Your task to perform on an android device: Clear the cart on ebay.com. Add razer deathadder to the cart on ebay.com, then select checkout. Image 0: 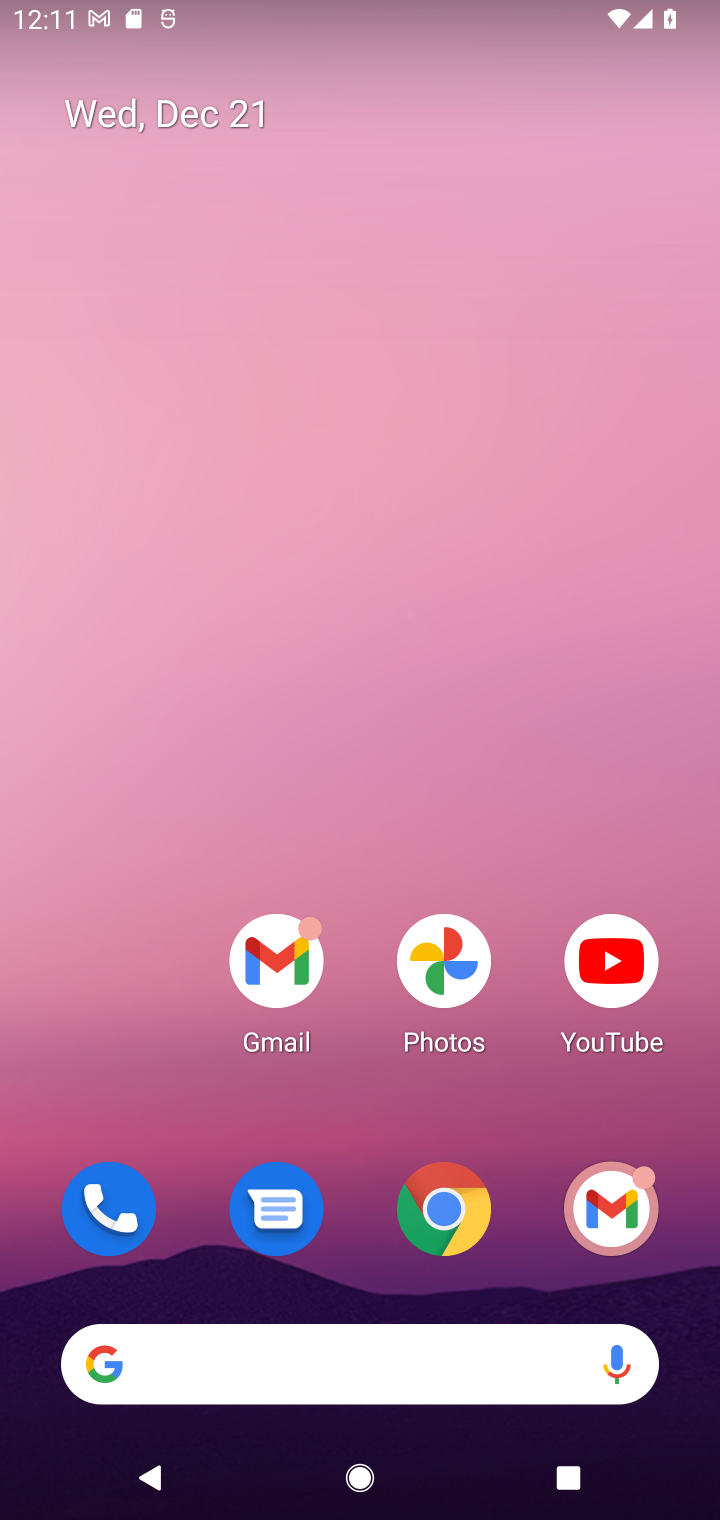
Step 0: click (433, 1218)
Your task to perform on an android device: Clear the cart on ebay.com. Add razer deathadder to the cart on ebay.com, then select checkout. Image 1: 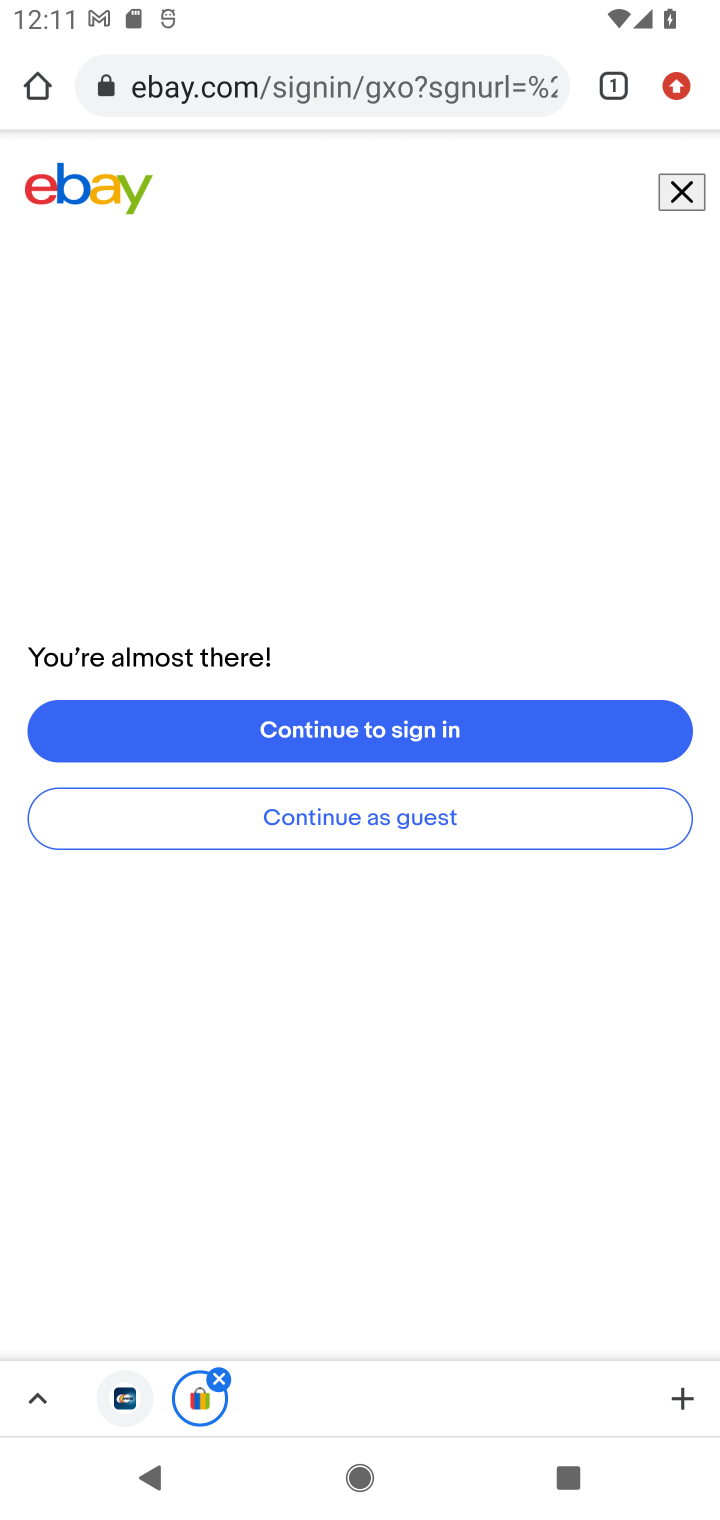
Step 1: click (688, 202)
Your task to perform on an android device: Clear the cart on ebay.com. Add razer deathadder to the cart on ebay.com, then select checkout. Image 2: 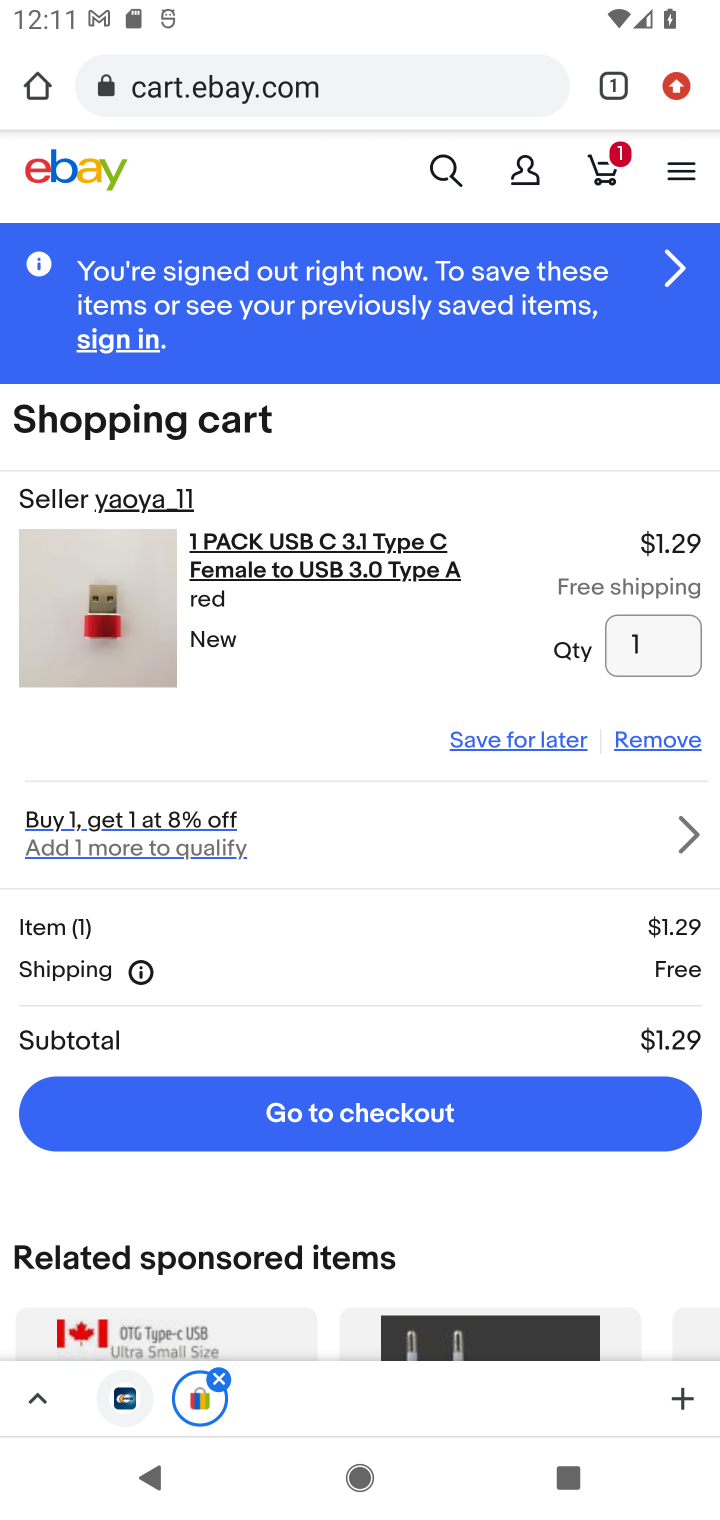
Step 2: click (652, 743)
Your task to perform on an android device: Clear the cart on ebay.com. Add razer deathadder to the cart on ebay.com, then select checkout. Image 3: 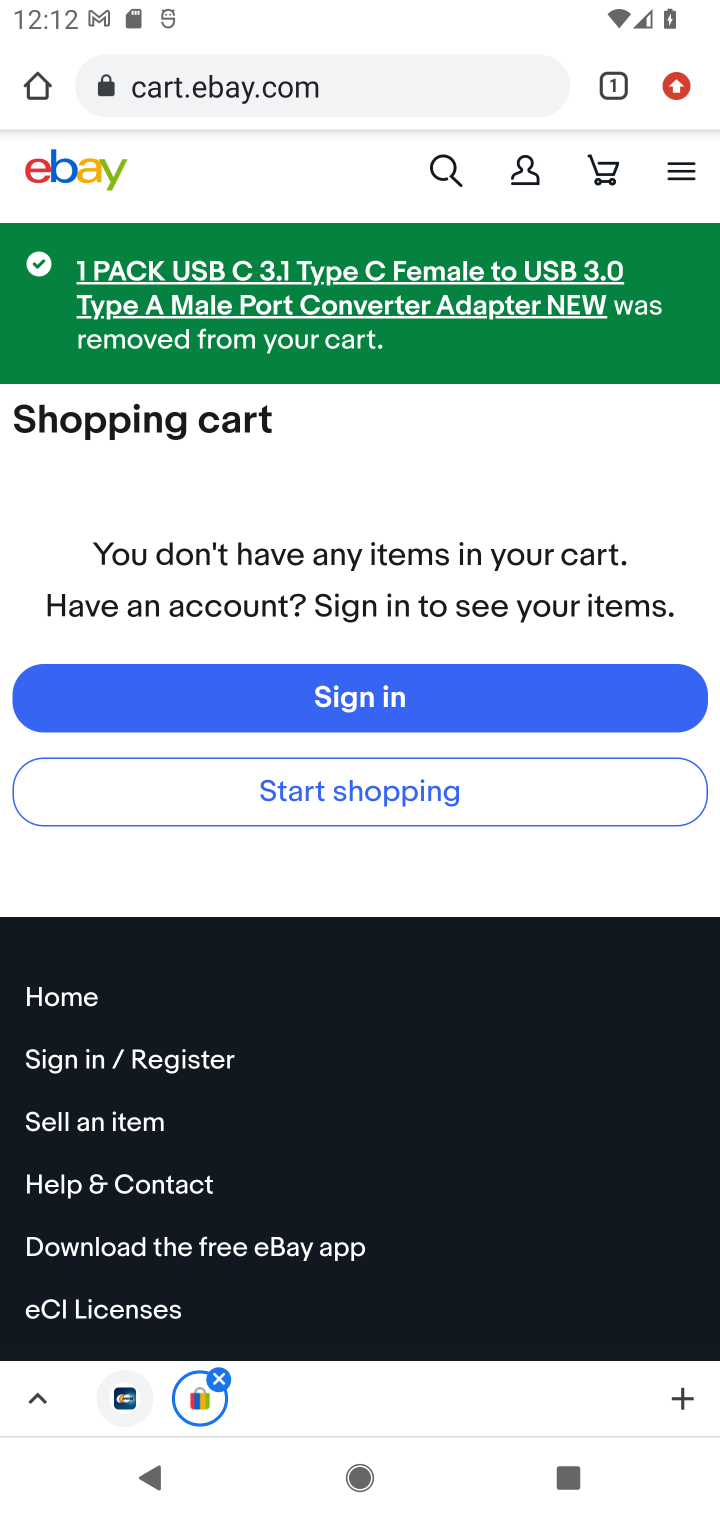
Step 3: click (432, 175)
Your task to perform on an android device: Clear the cart on ebay.com. Add razer deathadder to the cart on ebay.com, then select checkout. Image 4: 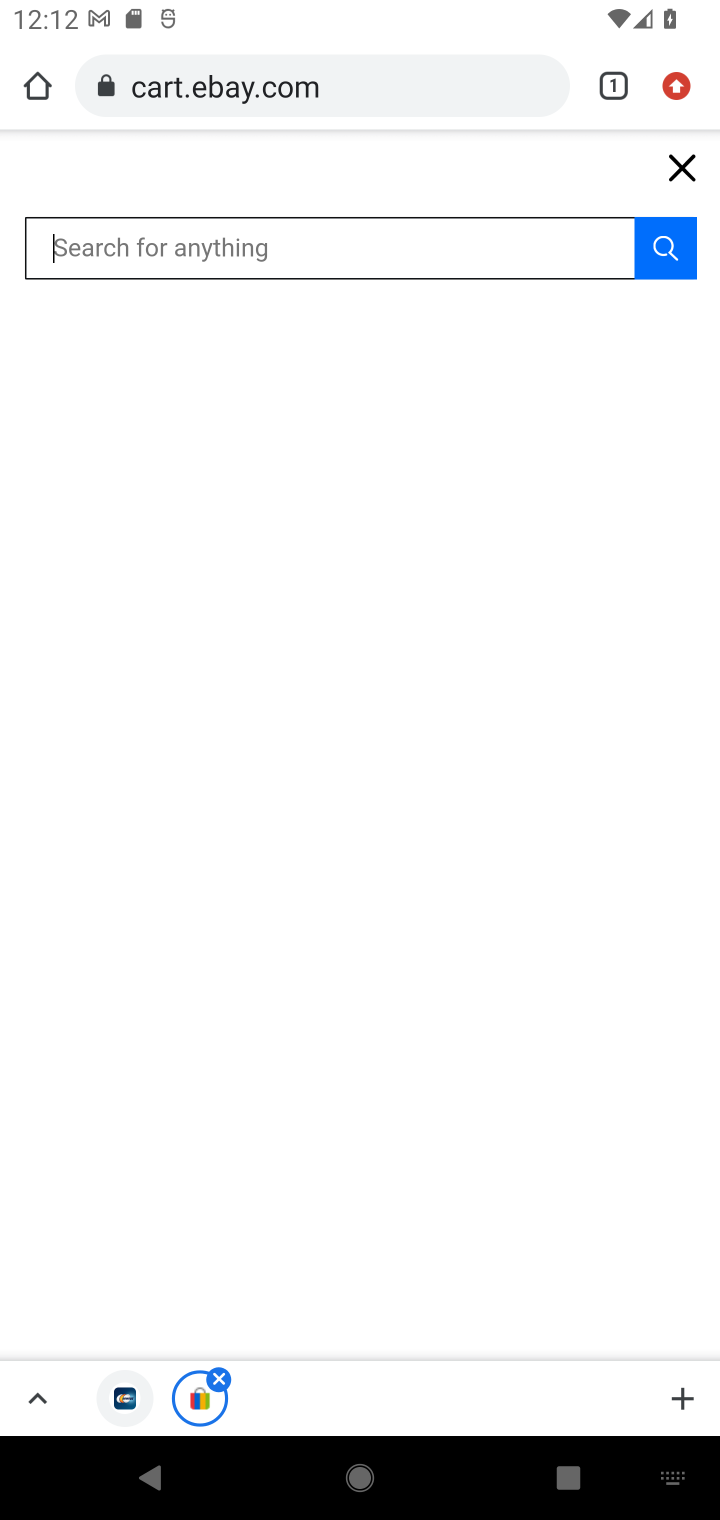
Step 4: type "razer deathadder"
Your task to perform on an android device: Clear the cart on ebay.com. Add razer deathadder to the cart on ebay.com, then select checkout. Image 5: 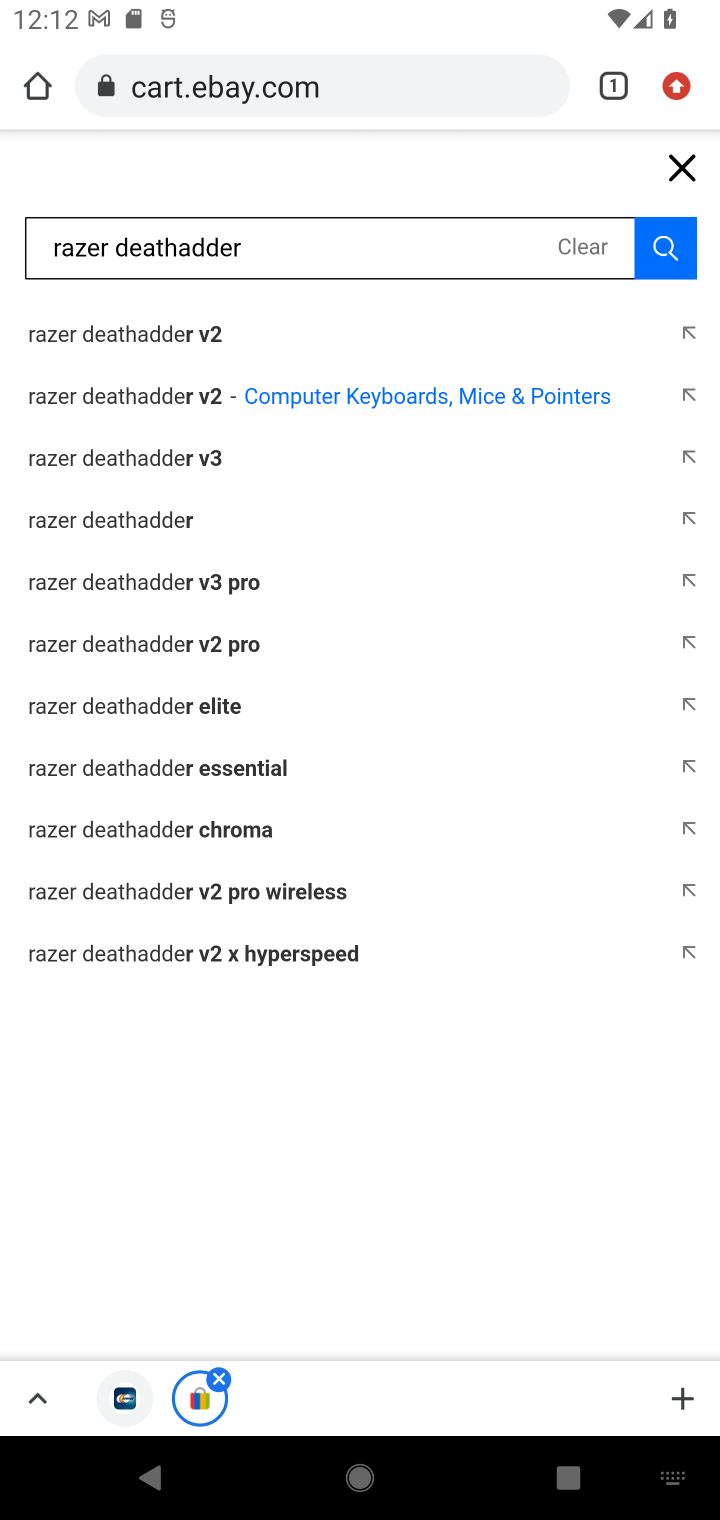
Step 5: click (140, 530)
Your task to perform on an android device: Clear the cart on ebay.com. Add razer deathadder to the cart on ebay.com, then select checkout. Image 6: 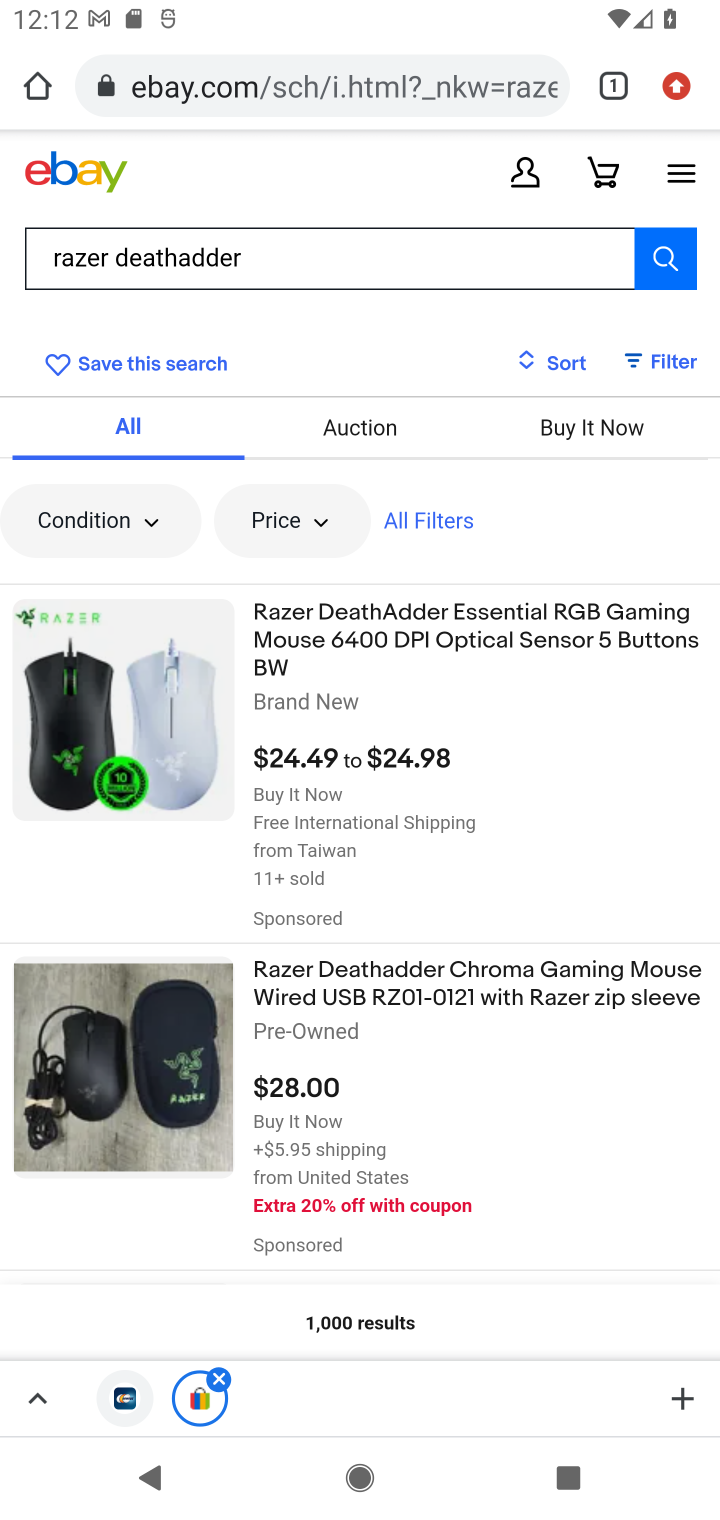
Step 6: click (315, 642)
Your task to perform on an android device: Clear the cart on ebay.com. Add razer deathadder to the cart on ebay.com, then select checkout. Image 7: 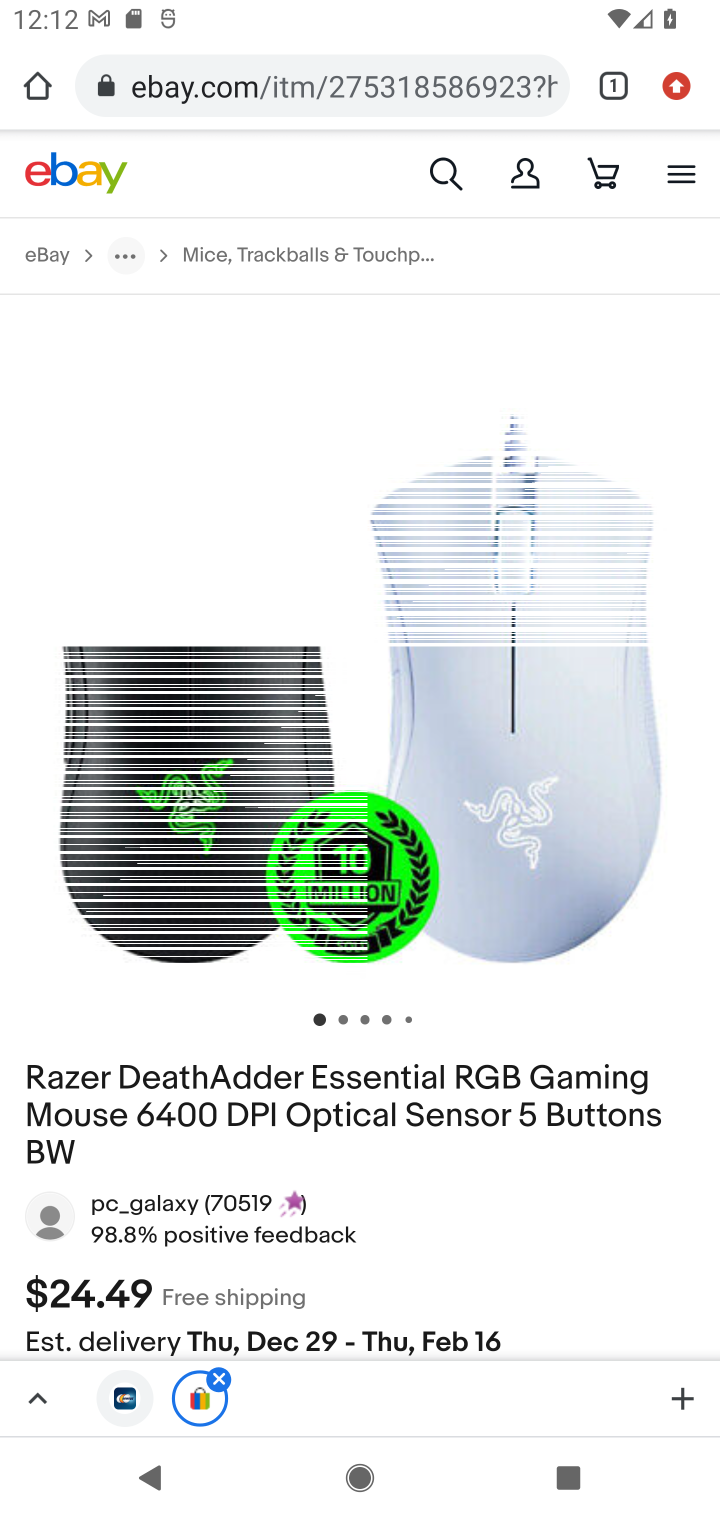
Step 7: drag from (367, 1126) to (407, 439)
Your task to perform on an android device: Clear the cart on ebay.com. Add razer deathadder to the cart on ebay.com, then select checkout. Image 8: 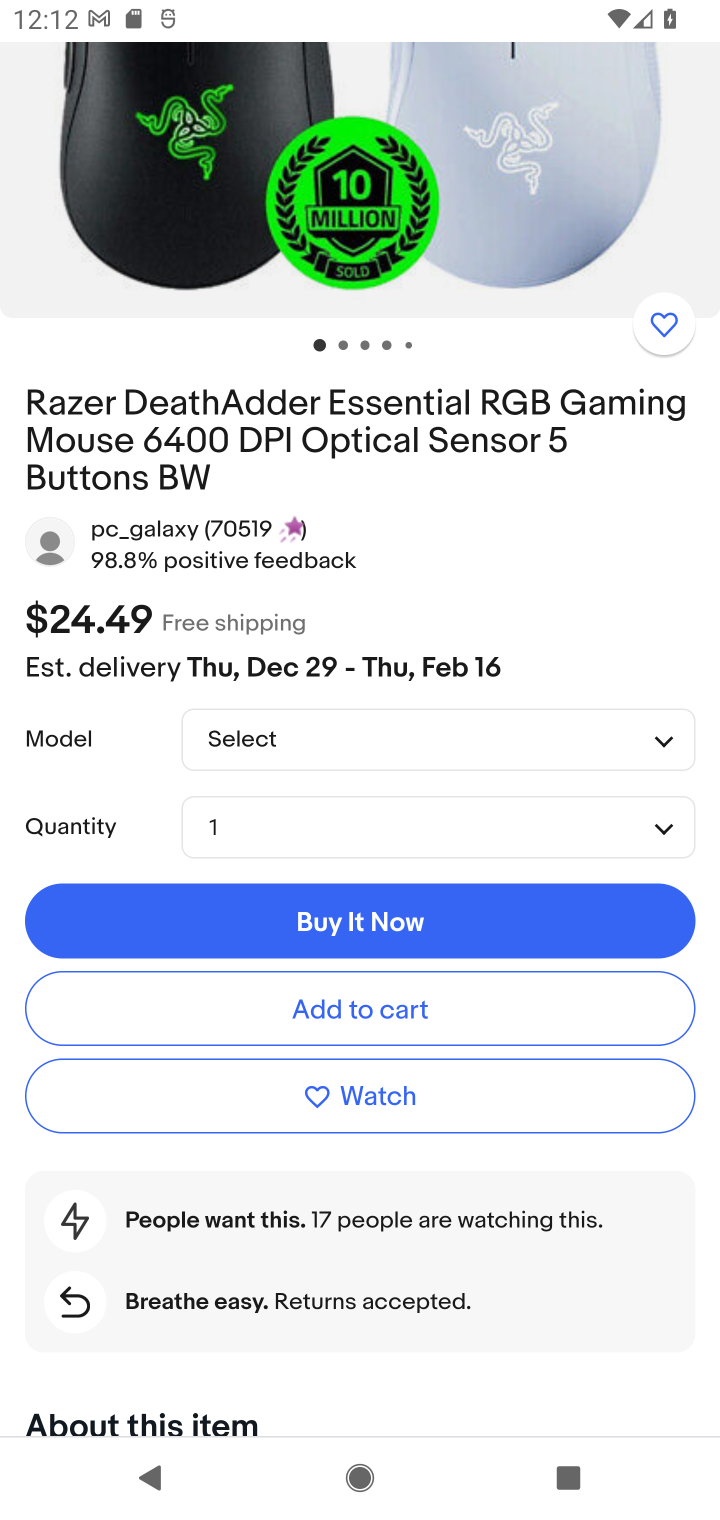
Step 8: click (333, 1012)
Your task to perform on an android device: Clear the cart on ebay.com. Add razer deathadder to the cart on ebay.com, then select checkout. Image 9: 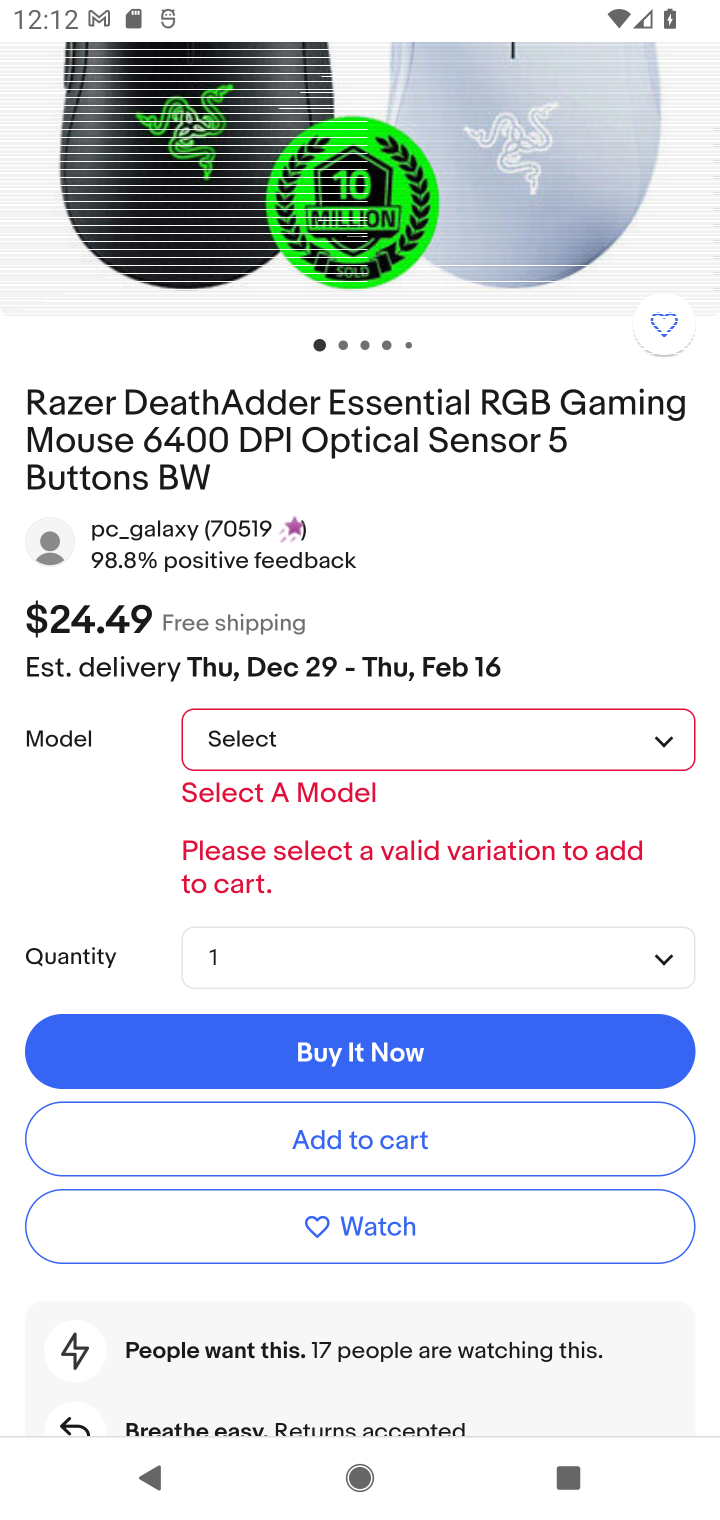
Step 9: click (659, 744)
Your task to perform on an android device: Clear the cart on ebay.com. Add razer deathadder to the cart on ebay.com, then select checkout. Image 10: 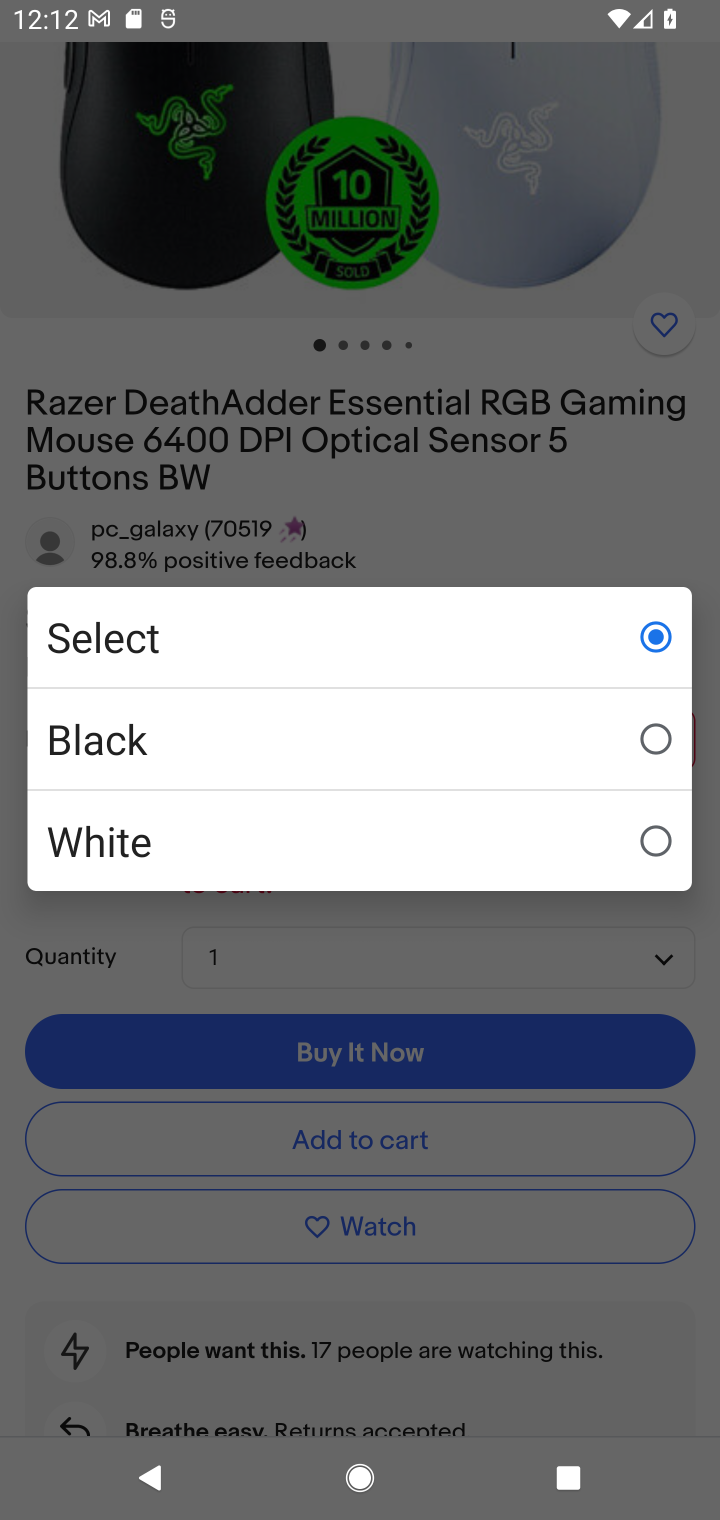
Step 10: click (171, 756)
Your task to perform on an android device: Clear the cart on ebay.com. Add razer deathadder to the cart on ebay.com, then select checkout. Image 11: 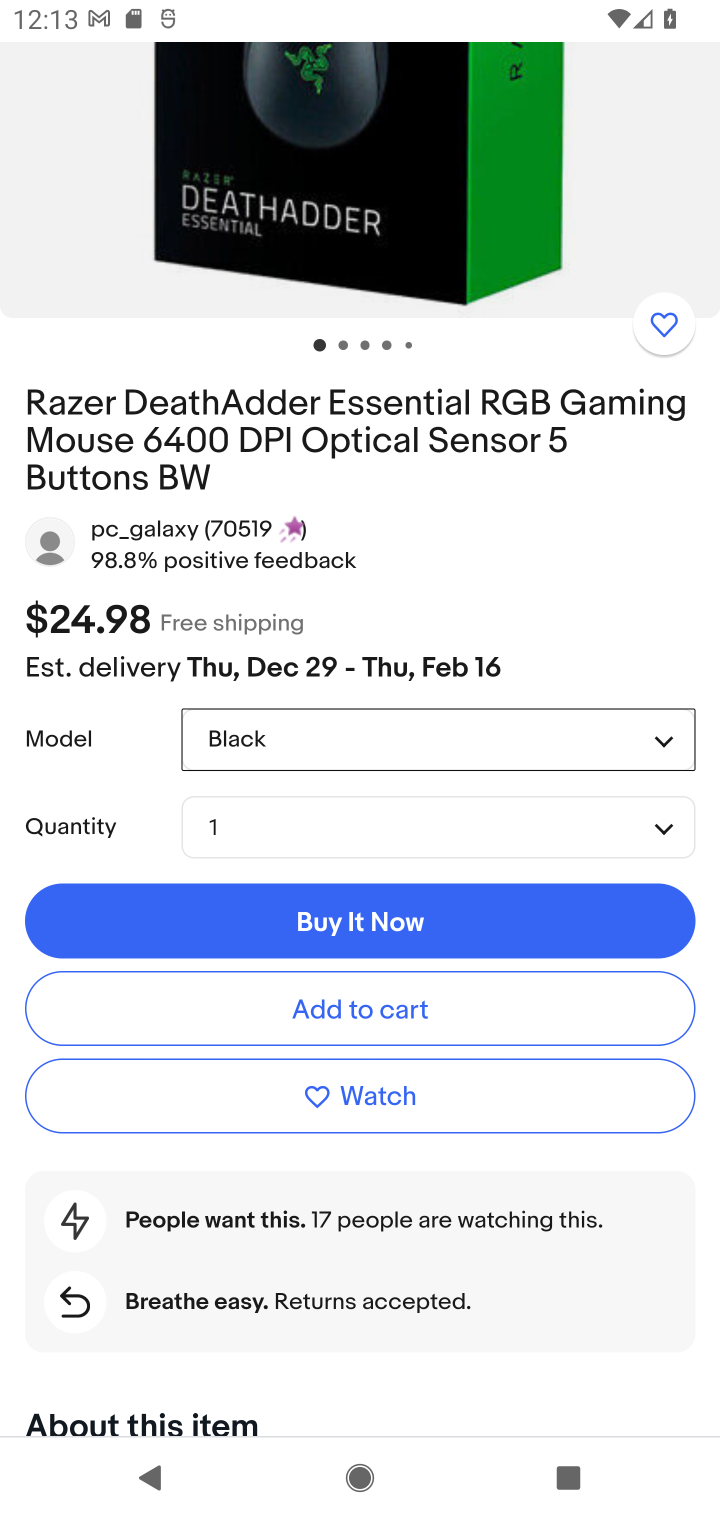
Step 11: click (287, 1003)
Your task to perform on an android device: Clear the cart on ebay.com. Add razer deathadder to the cart on ebay.com, then select checkout. Image 12: 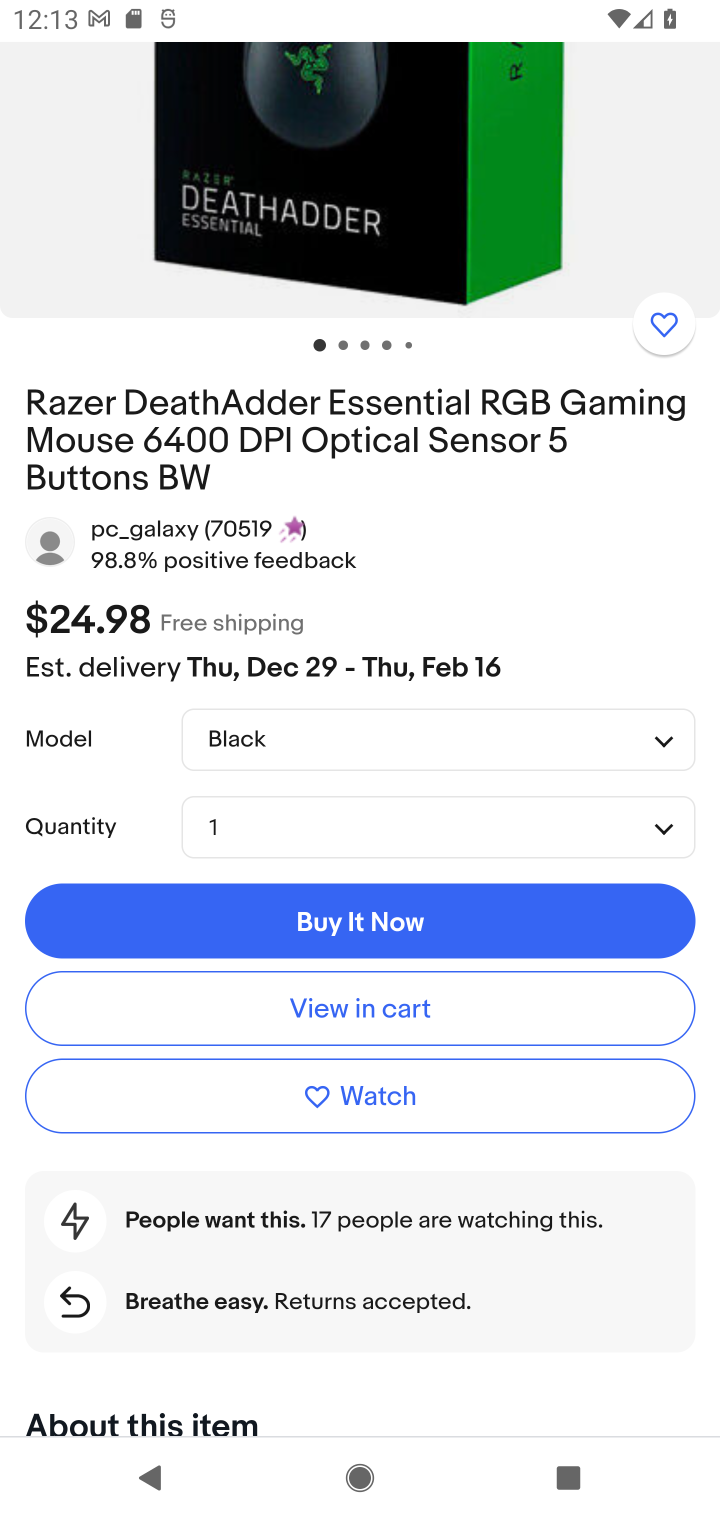
Step 12: click (324, 1007)
Your task to perform on an android device: Clear the cart on ebay.com. Add razer deathadder to the cart on ebay.com, then select checkout. Image 13: 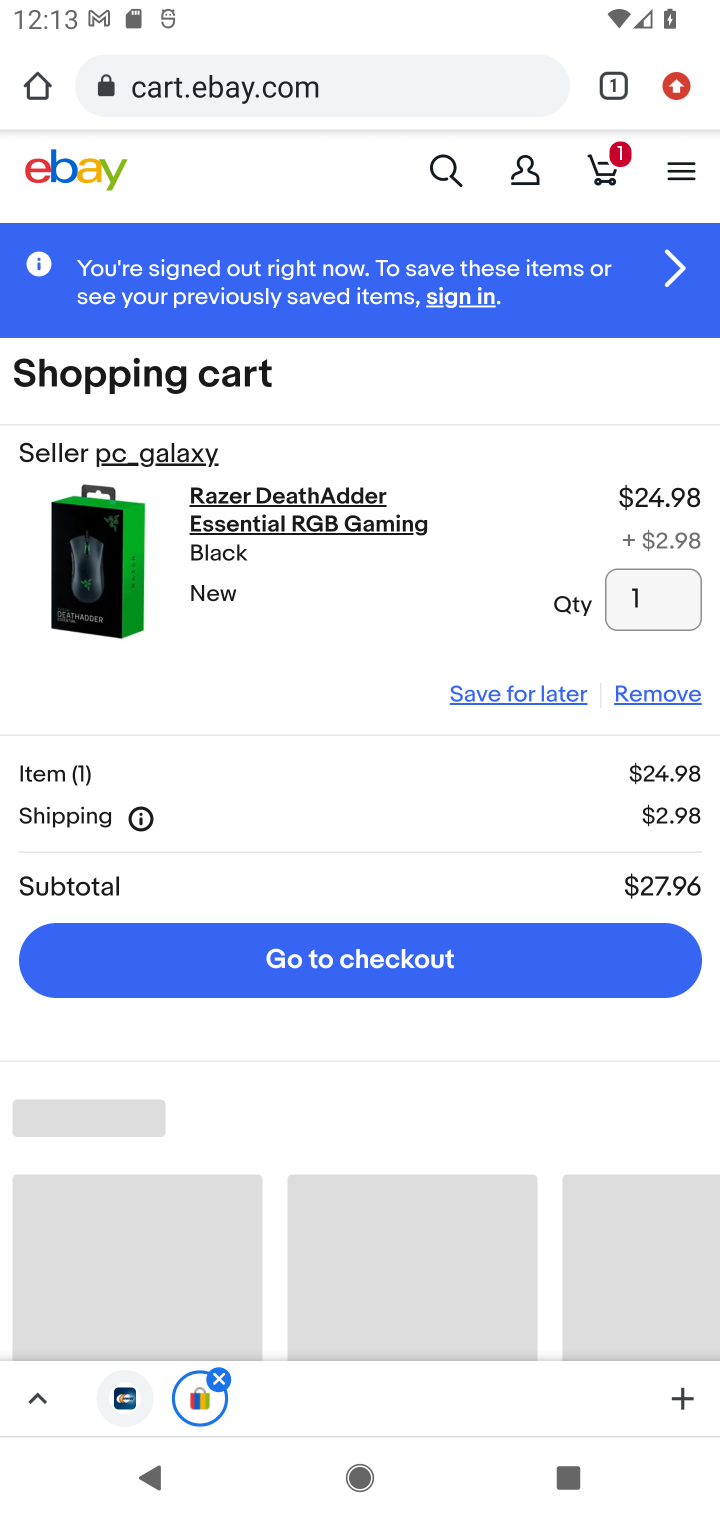
Step 13: click (338, 969)
Your task to perform on an android device: Clear the cart on ebay.com. Add razer deathadder to the cart on ebay.com, then select checkout. Image 14: 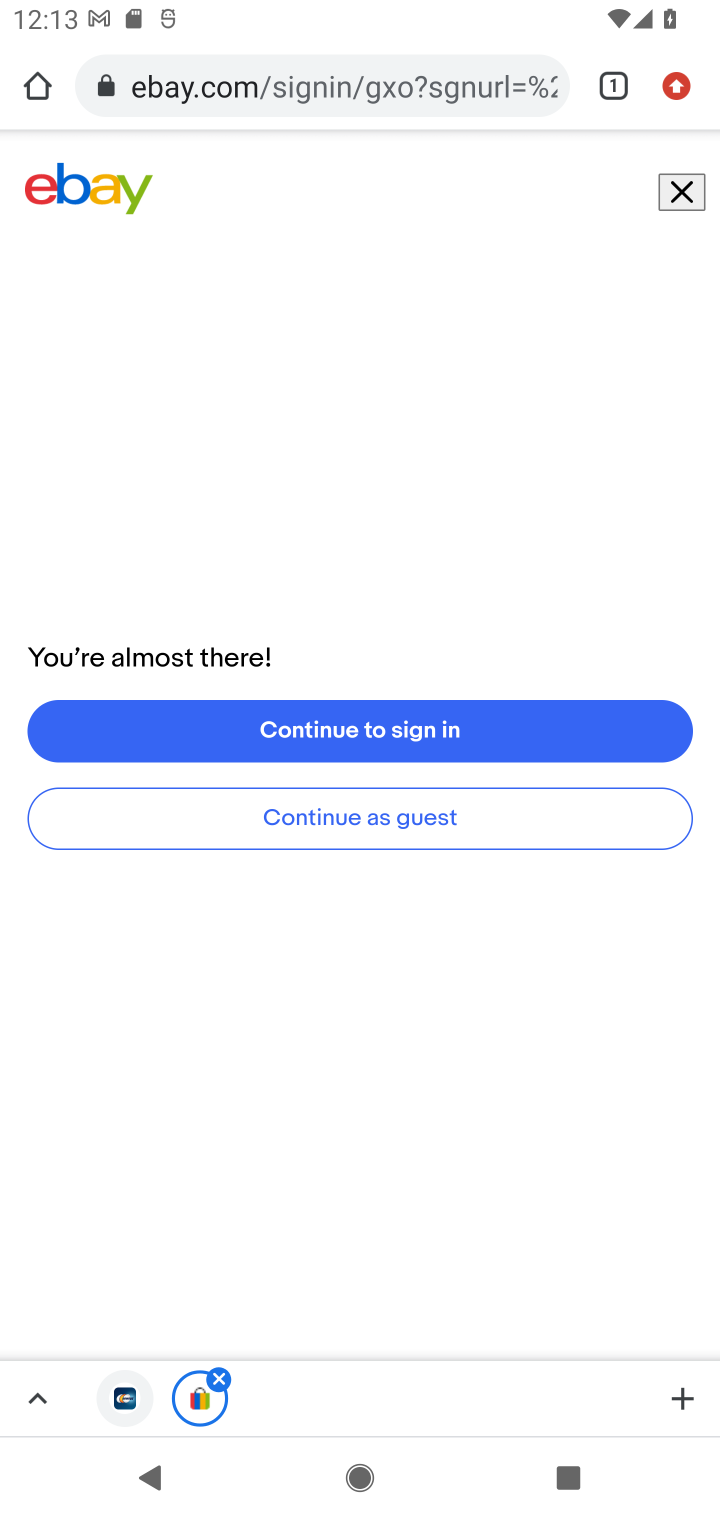
Step 14: task complete